Your task to perform on an android device: check the backup settings in the google photos Image 0: 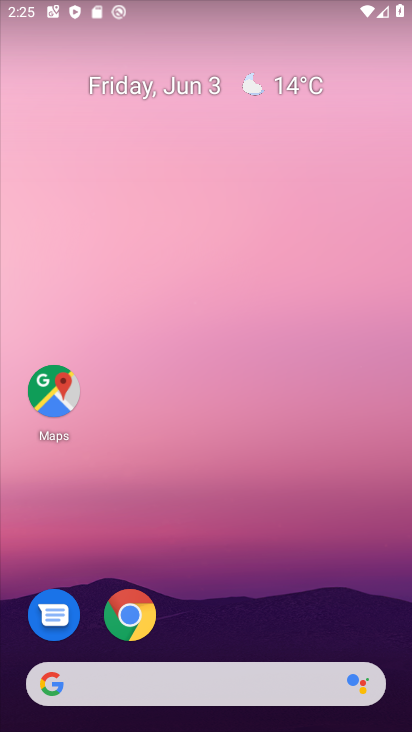
Step 0: drag from (239, 639) to (194, 98)
Your task to perform on an android device: check the backup settings in the google photos Image 1: 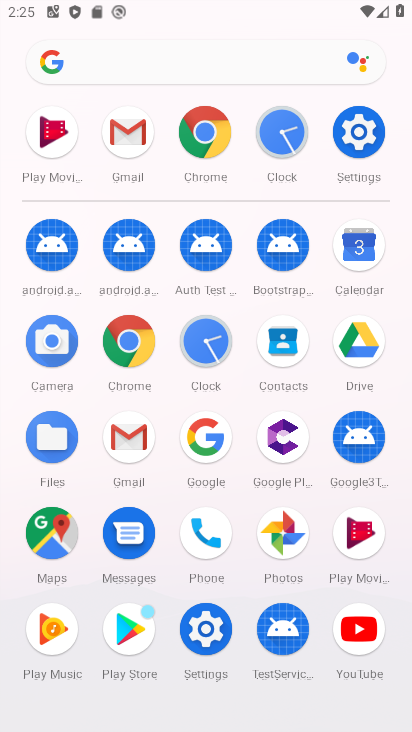
Step 1: click (278, 536)
Your task to perform on an android device: check the backup settings in the google photos Image 2: 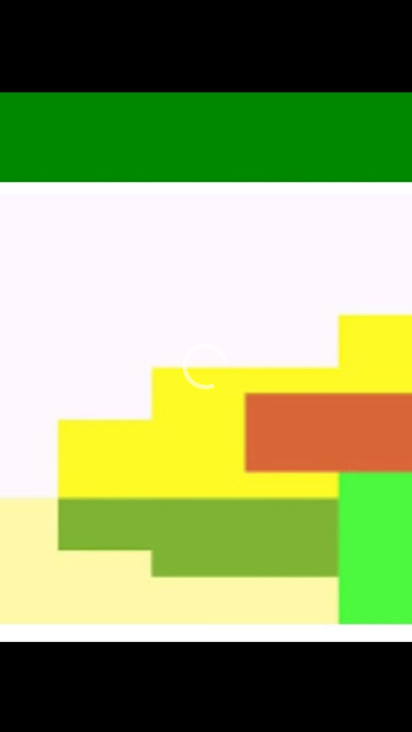
Step 2: press back button
Your task to perform on an android device: check the backup settings in the google photos Image 3: 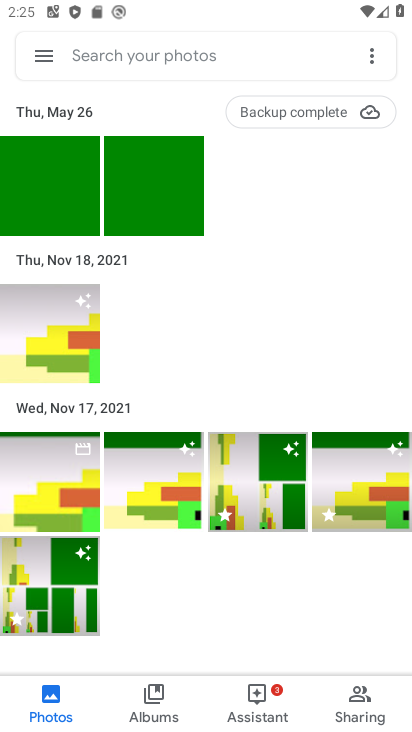
Step 3: click (55, 65)
Your task to perform on an android device: check the backup settings in the google photos Image 4: 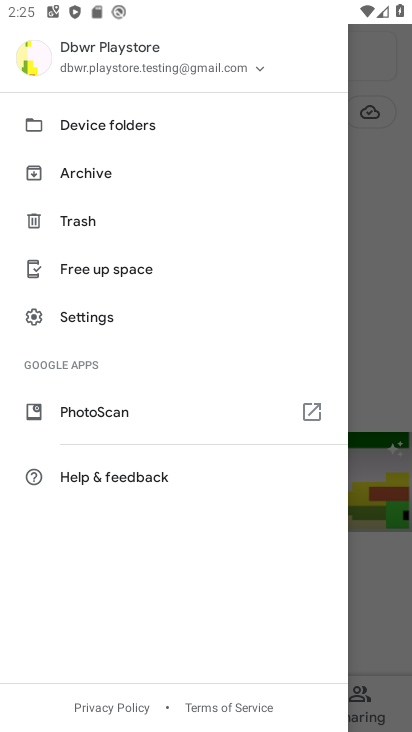
Step 4: drag from (196, 535) to (224, 212)
Your task to perform on an android device: check the backup settings in the google photos Image 5: 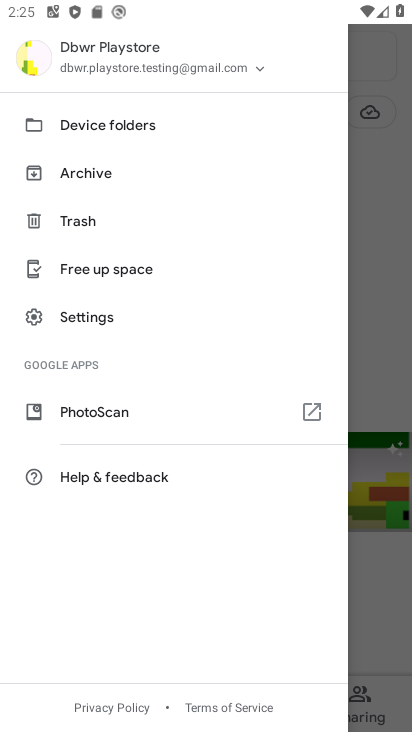
Step 5: click (91, 324)
Your task to perform on an android device: check the backup settings in the google photos Image 6: 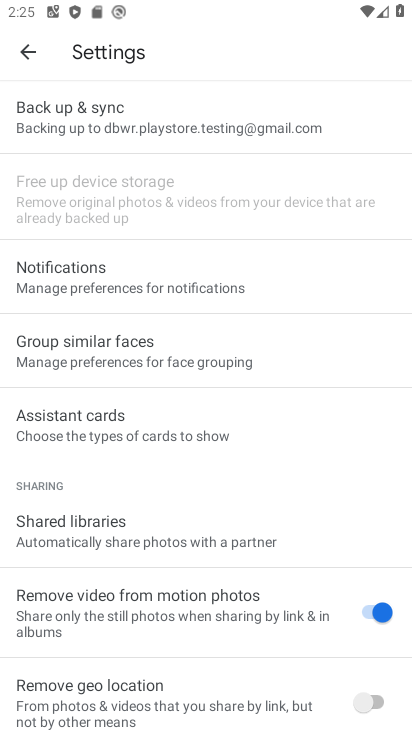
Step 6: click (100, 126)
Your task to perform on an android device: check the backup settings in the google photos Image 7: 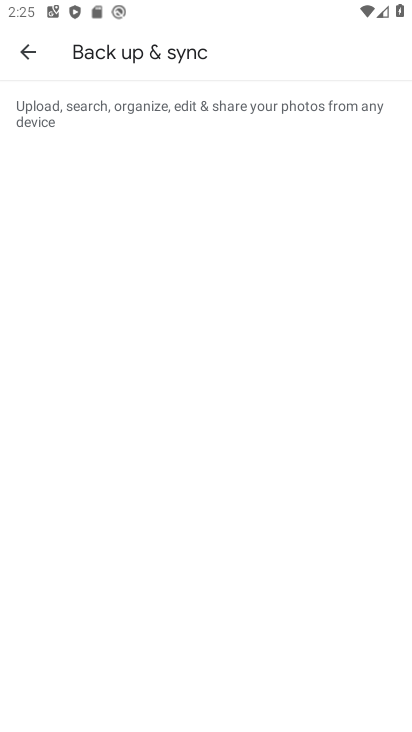
Step 7: task complete